Your task to perform on an android device: clear history in the chrome app Image 0: 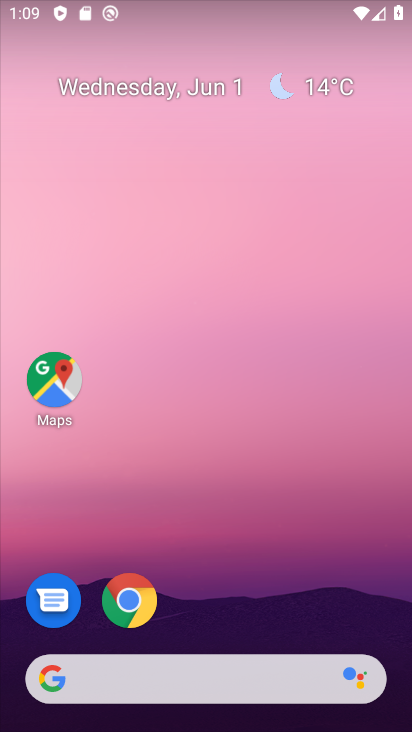
Step 0: click (135, 619)
Your task to perform on an android device: clear history in the chrome app Image 1: 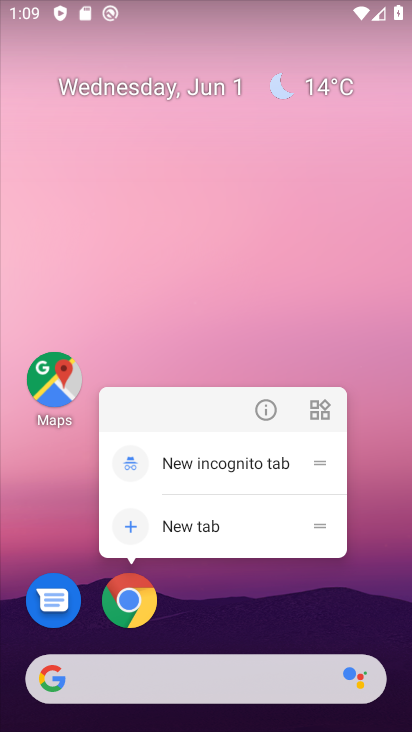
Step 1: click (135, 609)
Your task to perform on an android device: clear history in the chrome app Image 2: 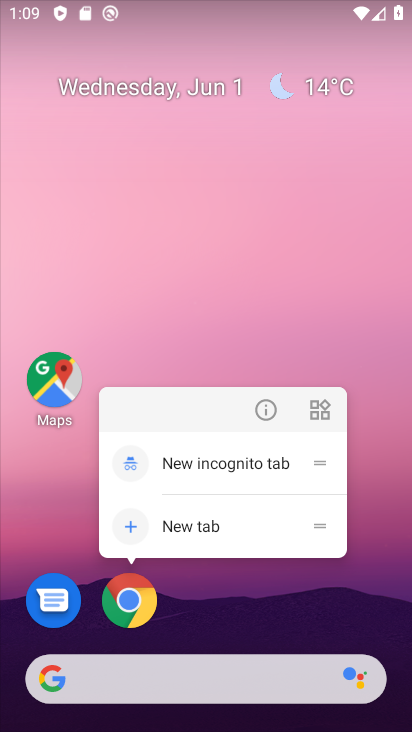
Step 2: click (134, 601)
Your task to perform on an android device: clear history in the chrome app Image 3: 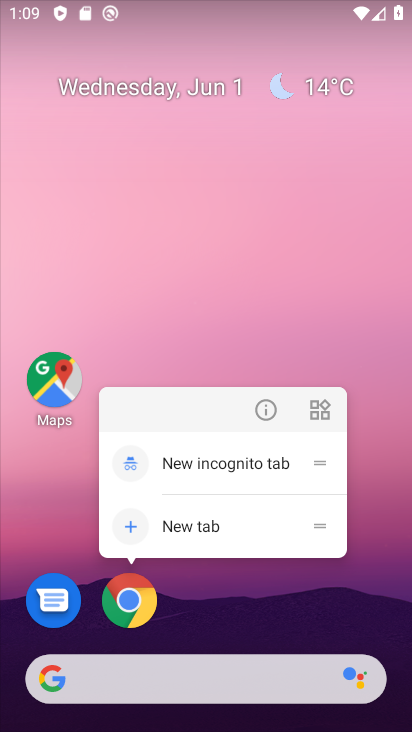
Step 3: click (134, 600)
Your task to perform on an android device: clear history in the chrome app Image 4: 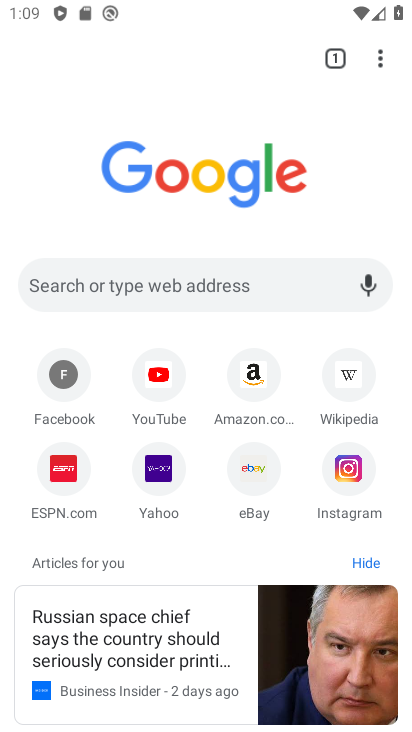
Step 4: task complete